Your task to perform on an android device: Go to Android settings Image 0: 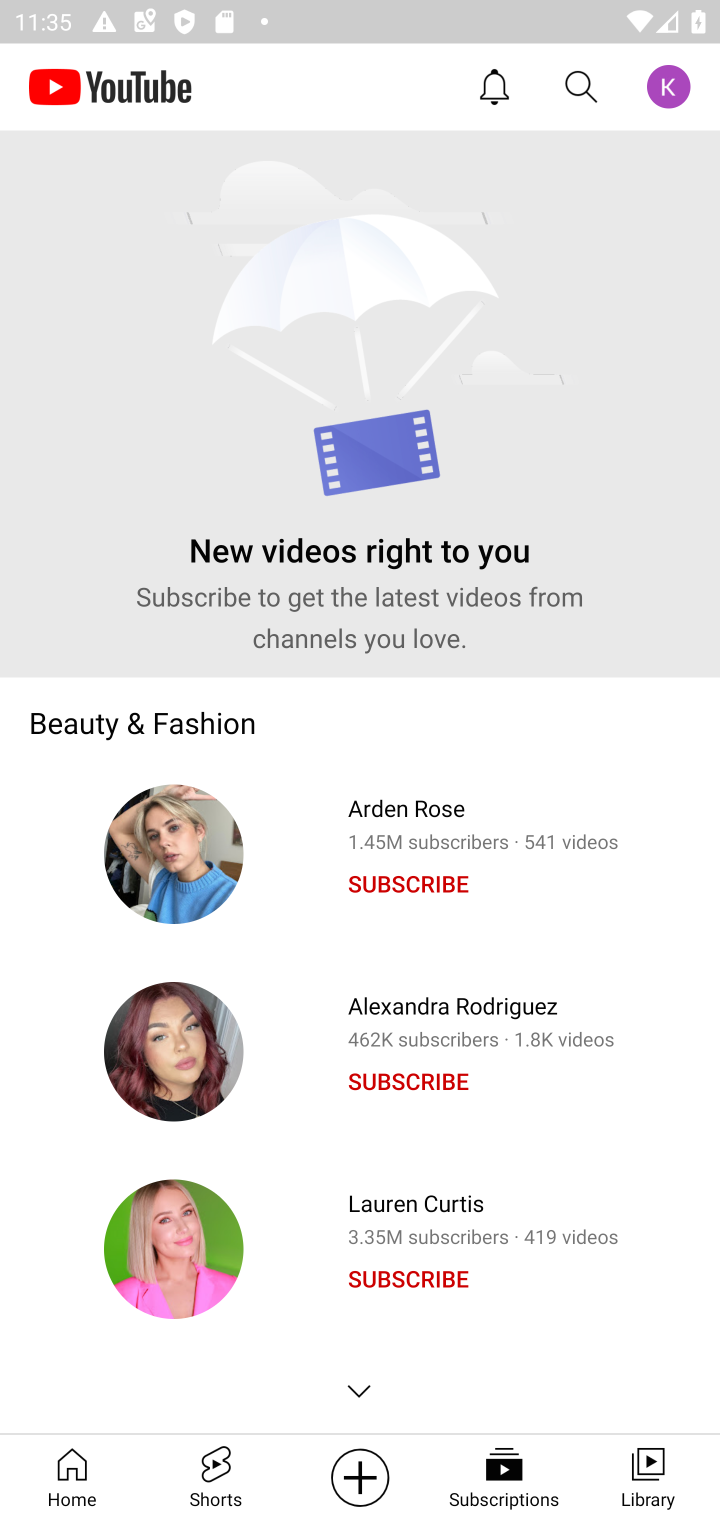
Step 0: press home button
Your task to perform on an android device: Go to Android settings Image 1: 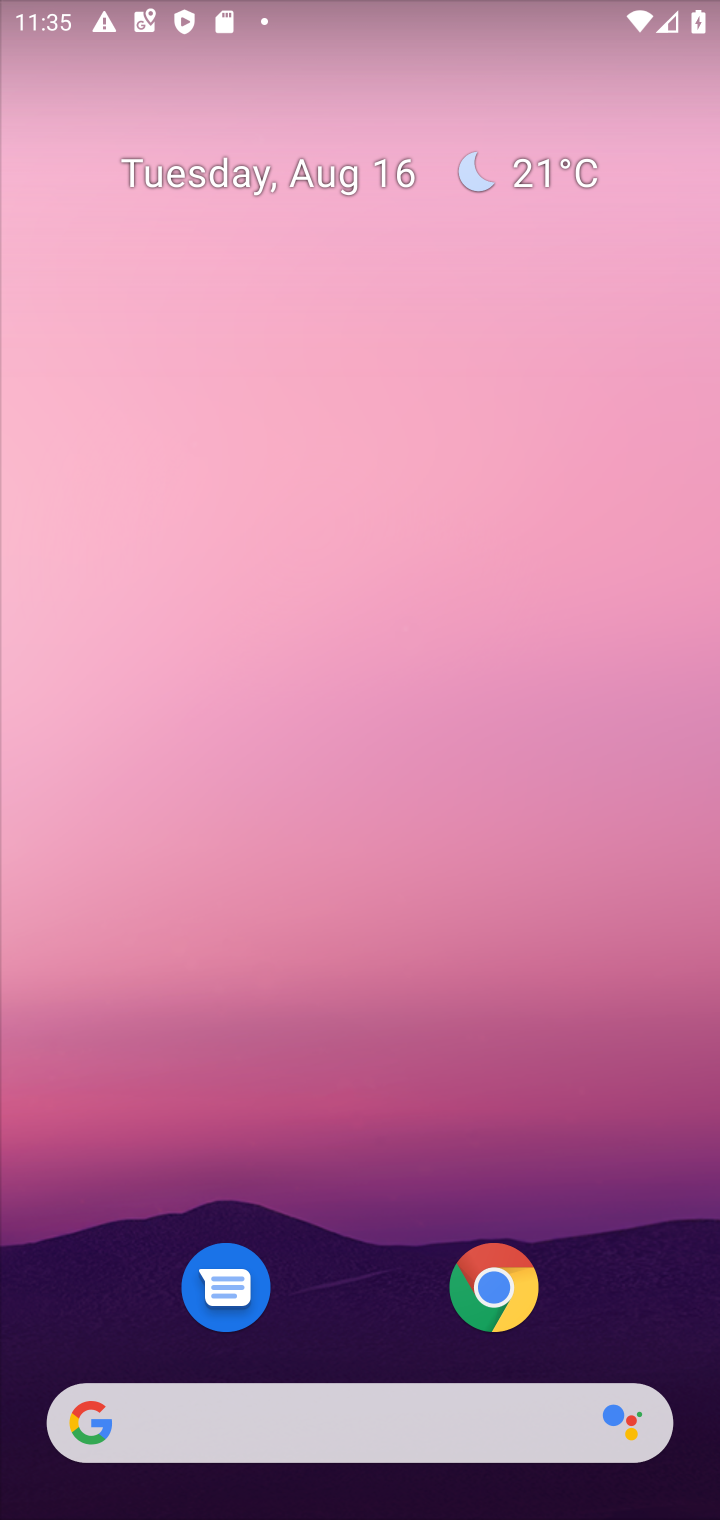
Step 1: drag from (637, 1254) to (575, 283)
Your task to perform on an android device: Go to Android settings Image 2: 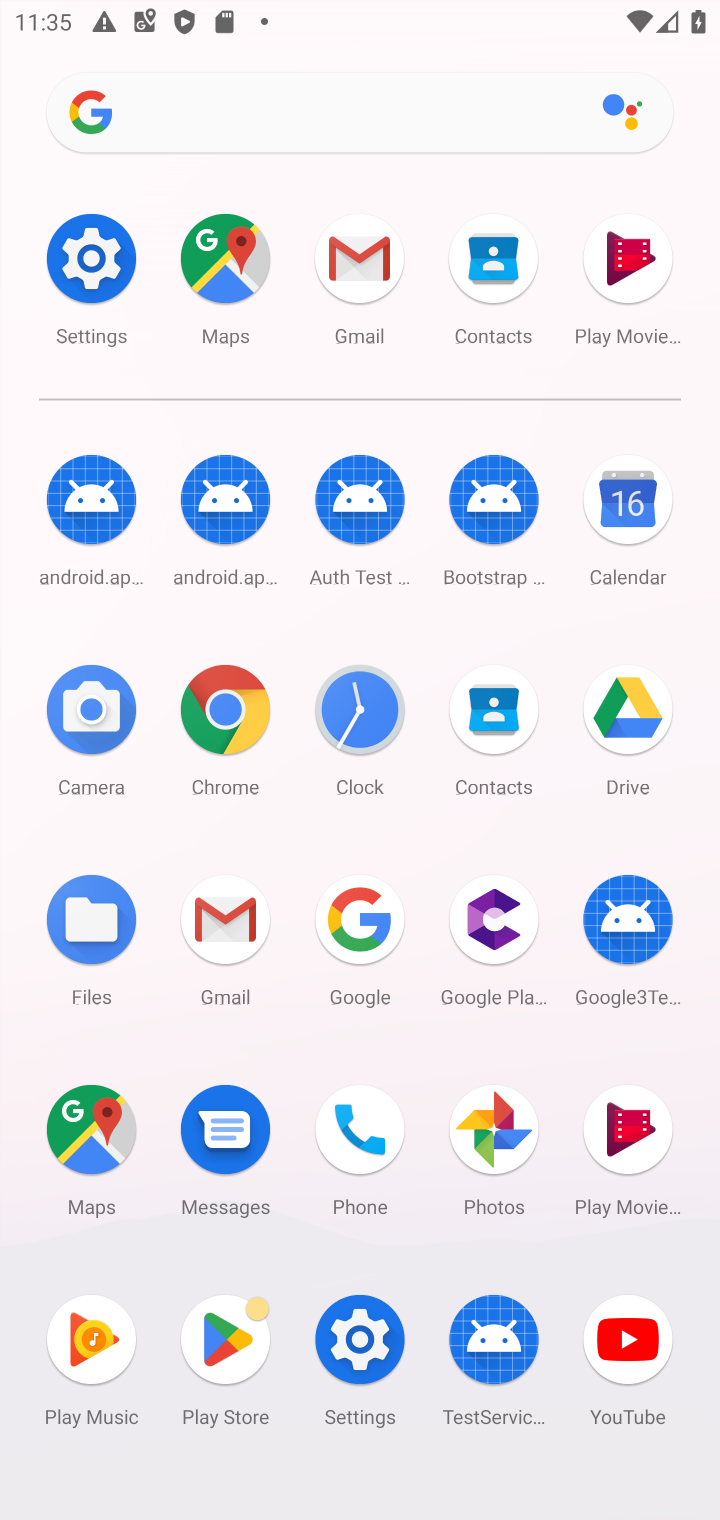
Step 2: click (354, 1349)
Your task to perform on an android device: Go to Android settings Image 3: 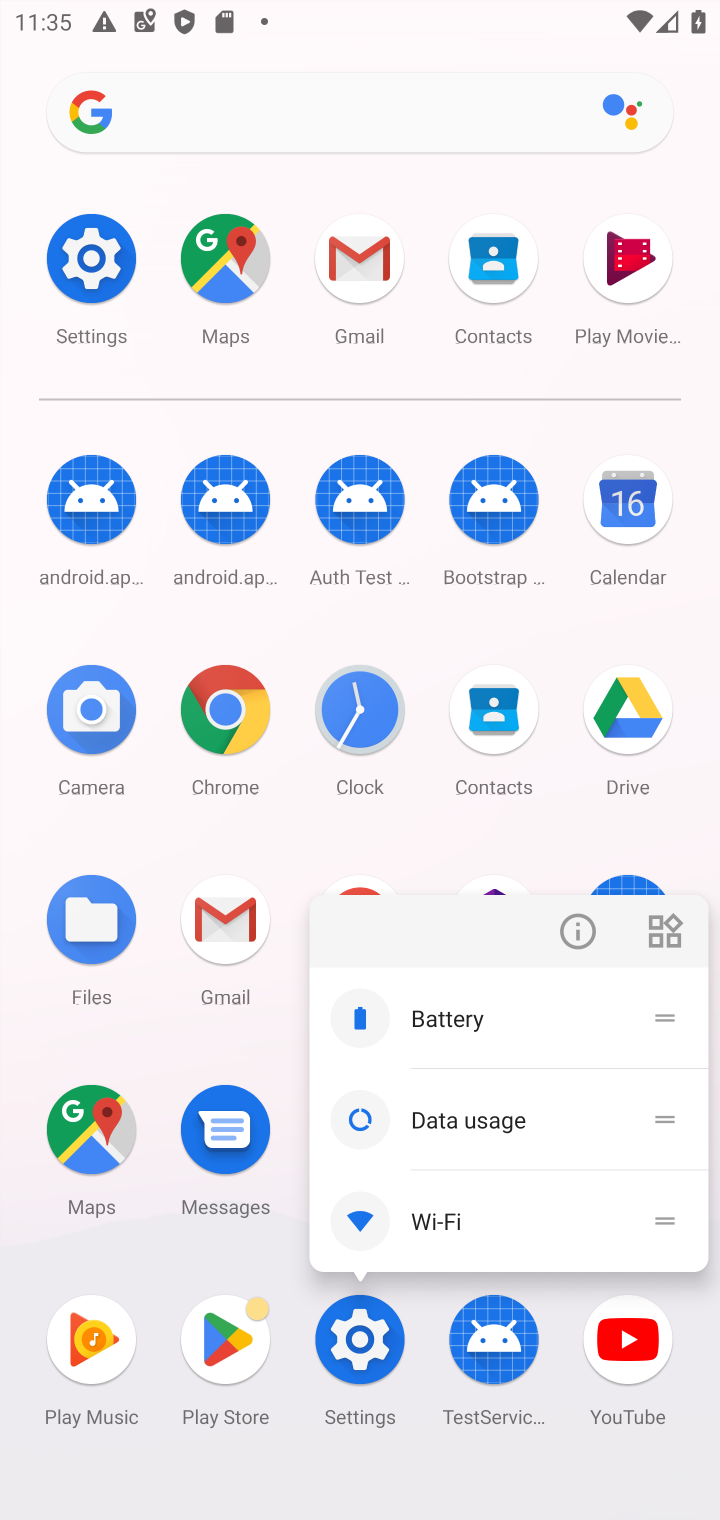
Step 3: click (351, 1349)
Your task to perform on an android device: Go to Android settings Image 4: 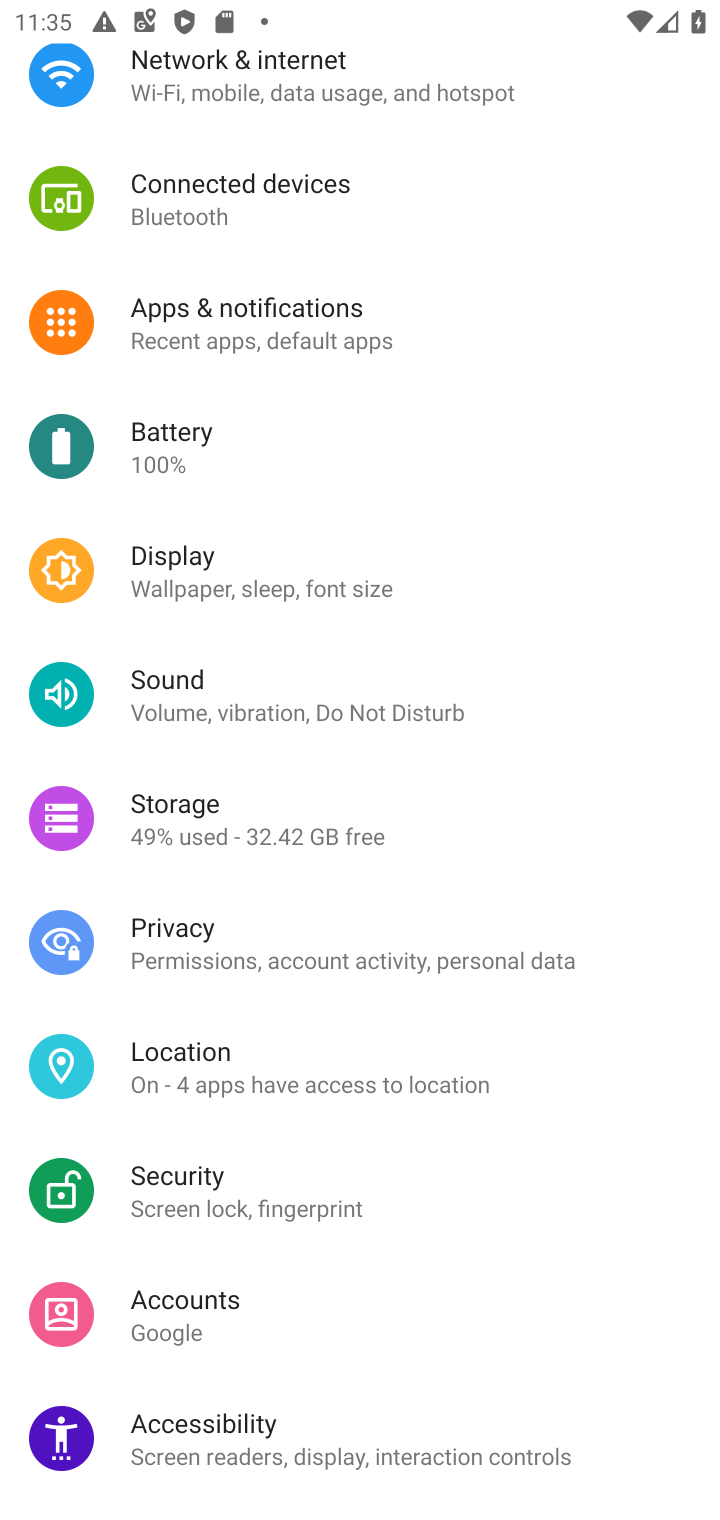
Step 4: drag from (616, 1391) to (577, 589)
Your task to perform on an android device: Go to Android settings Image 5: 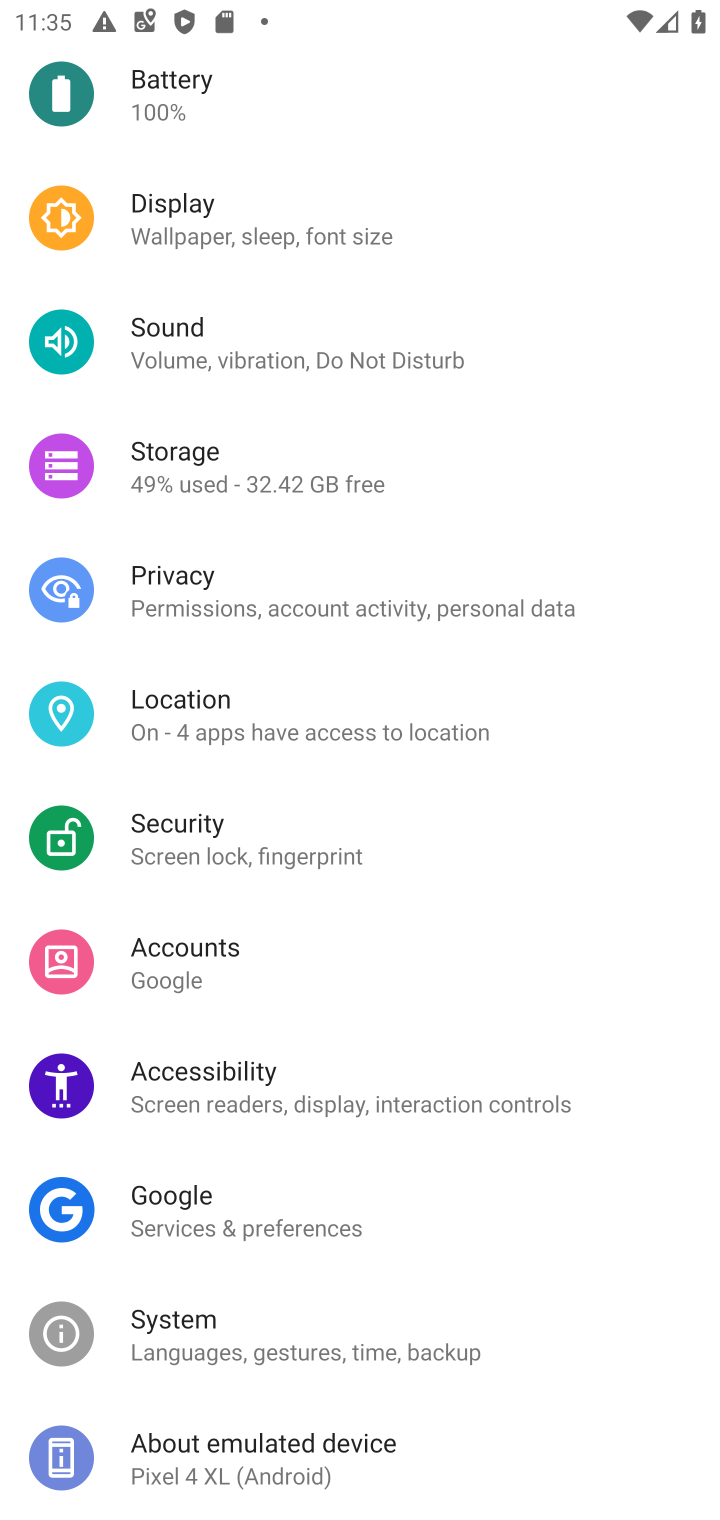
Step 5: click (257, 1436)
Your task to perform on an android device: Go to Android settings Image 6: 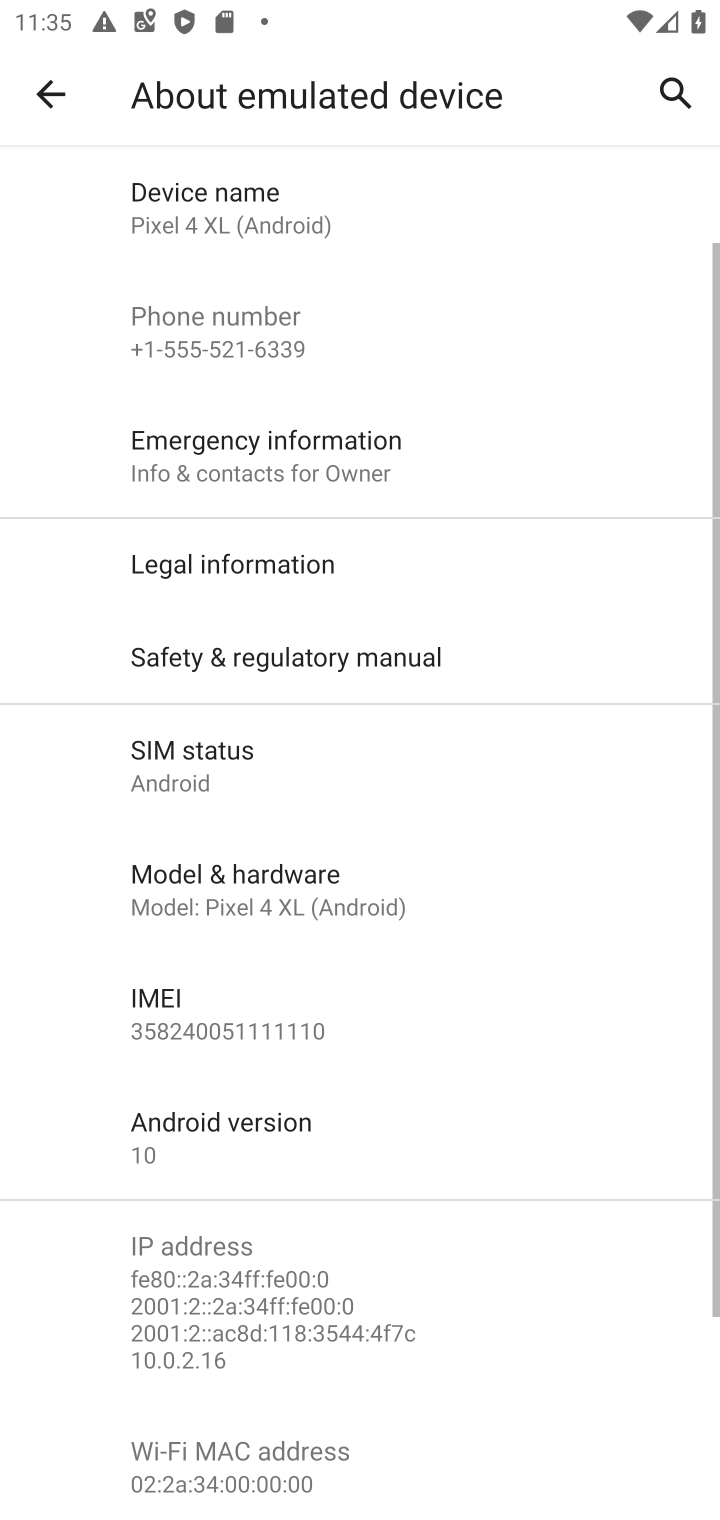
Step 6: task complete